Your task to perform on an android device: See recent photos Image 0: 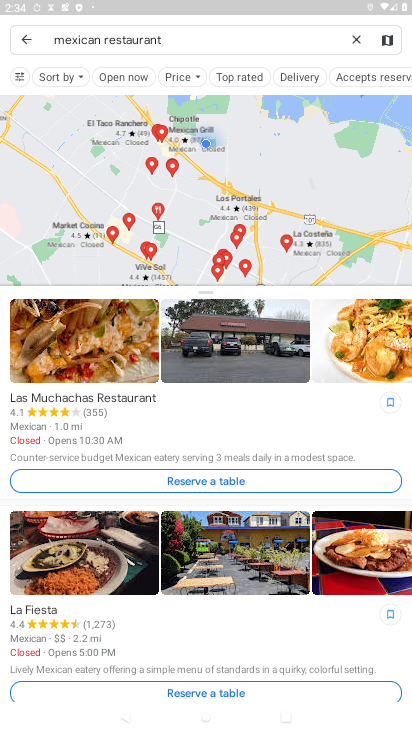
Step 0: press home button
Your task to perform on an android device: See recent photos Image 1: 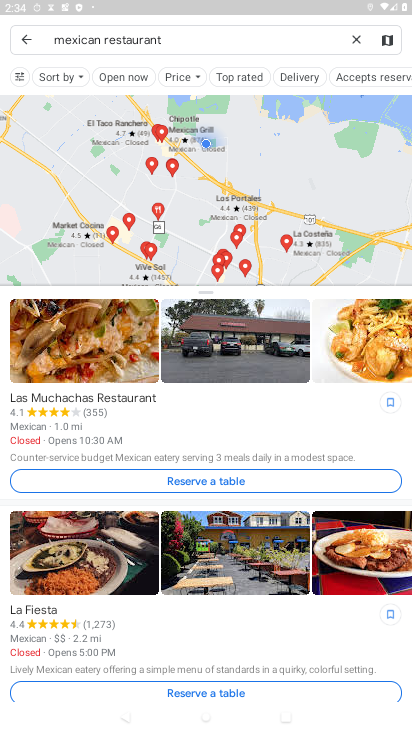
Step 1: press home button
Your task to perform on an android device: See recent photos Image 2: 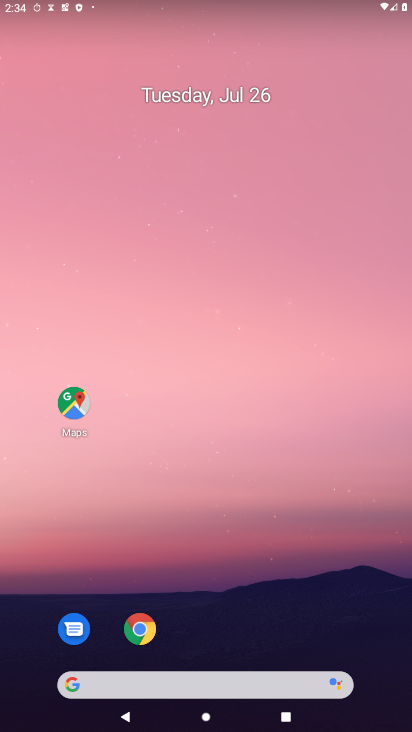
Step 2: drag from (250, 645) to (282, 104)
Your task to perform on an android device: See recent photos Image 3: 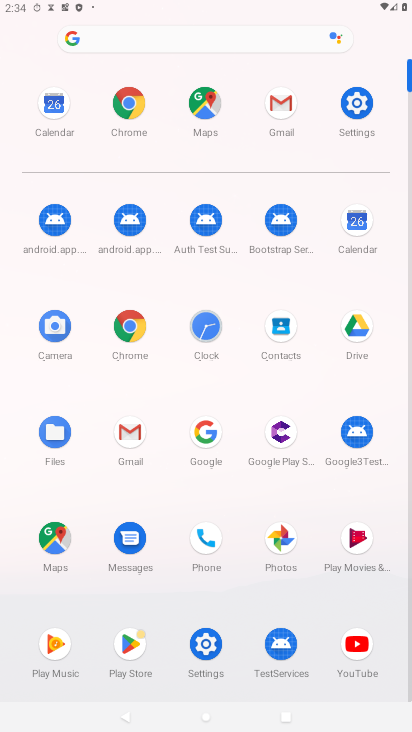
Step 3: click (273, 545)
Your task to perform on an android device: See recent photos Image 4: 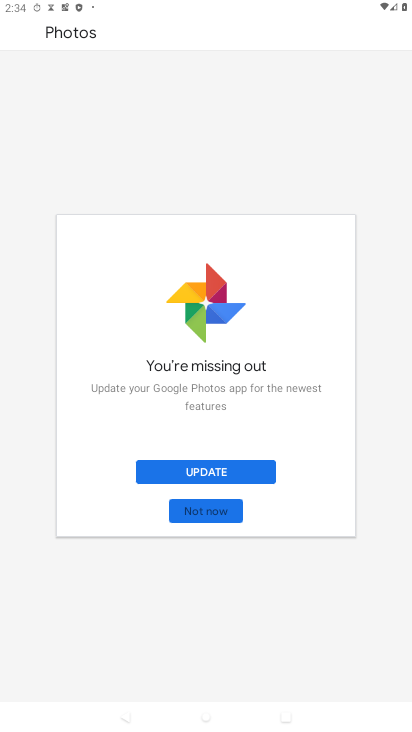
Step 4: click (232, 466)
Your task to perform on an android device: See recent photos Image 5: 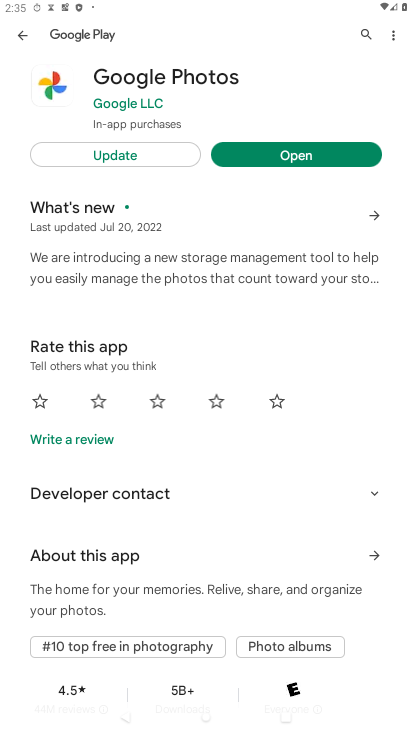
Step 5: click (148, 159)
Your task to perform on an android device: See recent photos Image 6: 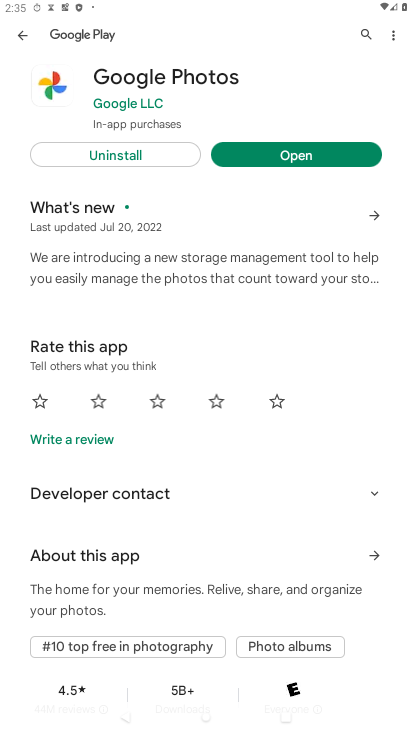
Step 6: click (294, 150)
Your task to perform on an android device: See recent photos Image 7: 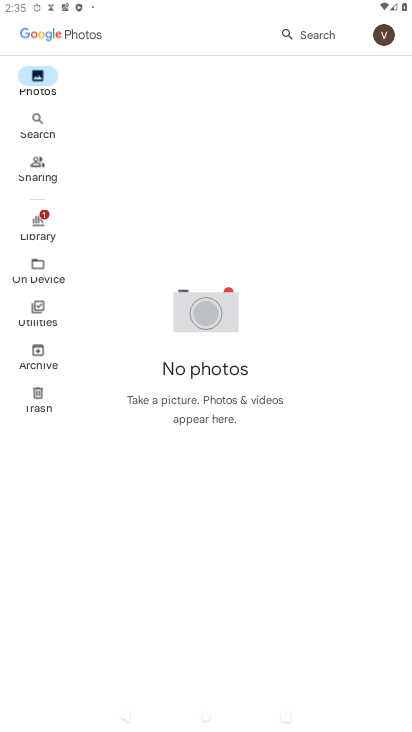
Step 7: task complete